Your task to perform on an android device: Go to wifi settings Image 0: 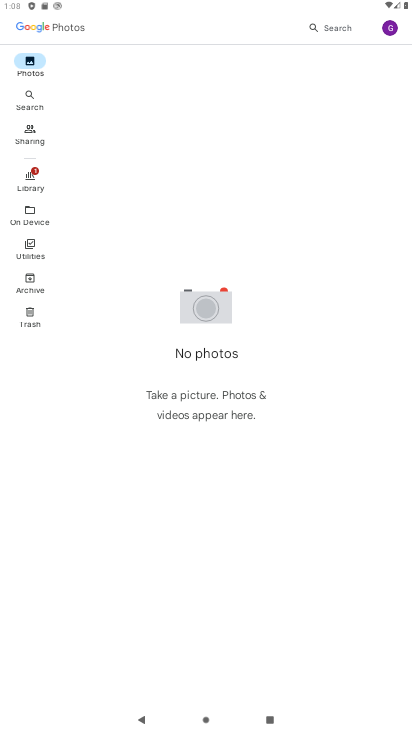
Step 0: press home button
Your task to perform on an android device: Go to wifi settings Image 1: 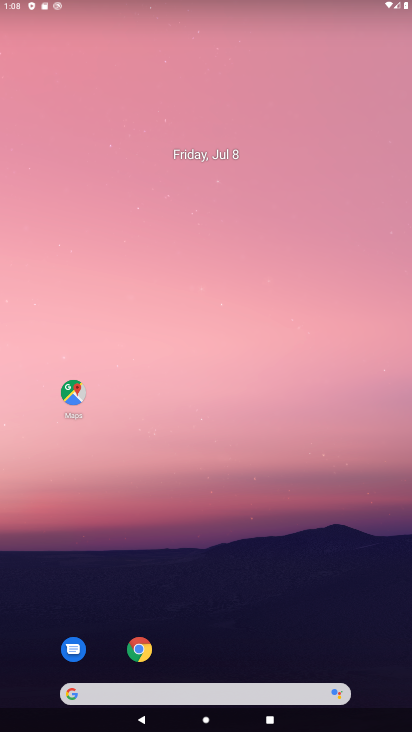
Step 1: drag from (255, 389) to (193, 110)
Your task to perform on an android device: Go to wifi settings Image 2: 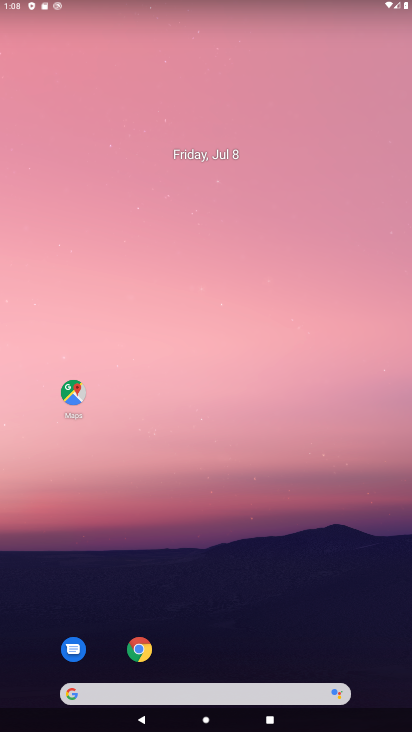
Step 2: drag from (271, 629) to (218, 245)
Your task to perform on an android device: Go to wifi settings Image 3: 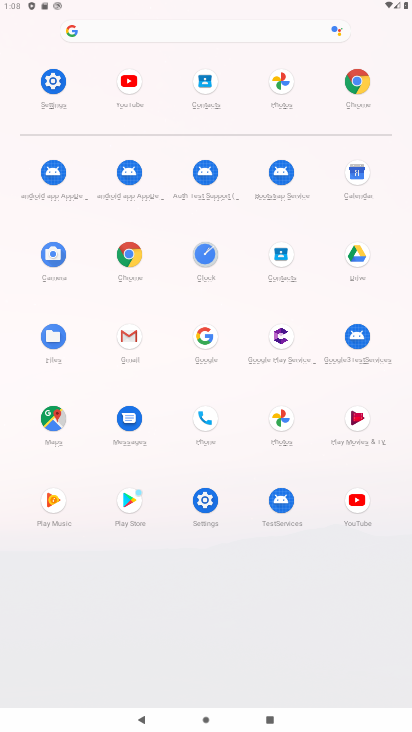
Step 3: click (46, 80)
Your task to perform on an android device: Go to wifi settings Image 4: 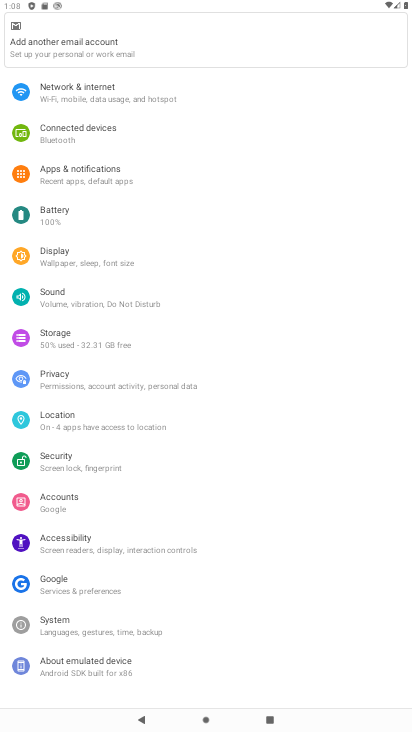
Step 4: click (103, 100)
Your task to perform on an android device: Go to wifi settings Image 5: 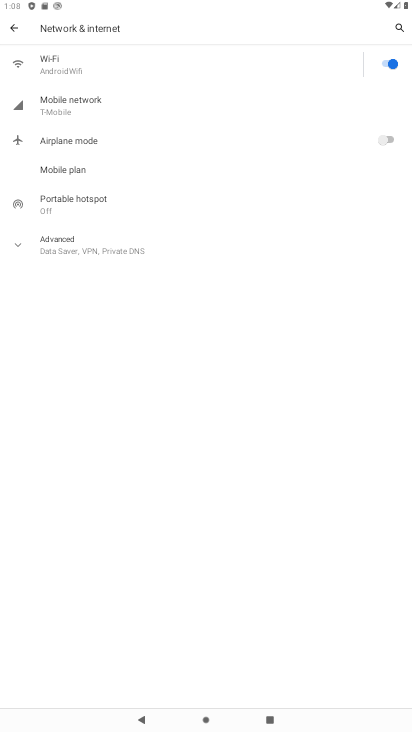
Step 5: click (45, 69)
Your task to perform on an android device: Go to wifi settings Image 6: 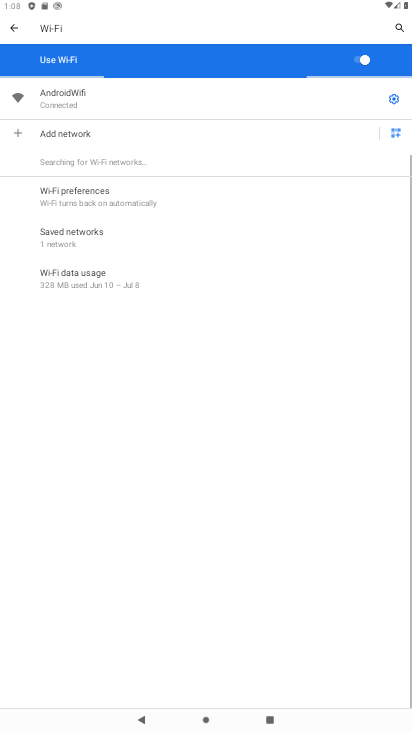
Step 6: click (397, 99)
Your task to perform on an android device: Go to wifi settings Image 7: 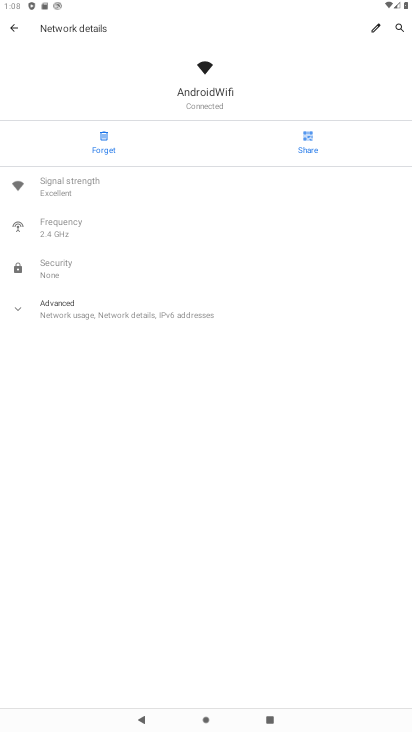
Step 7: task complete